Your task to perform on an android device: Go to Maps Image 0: 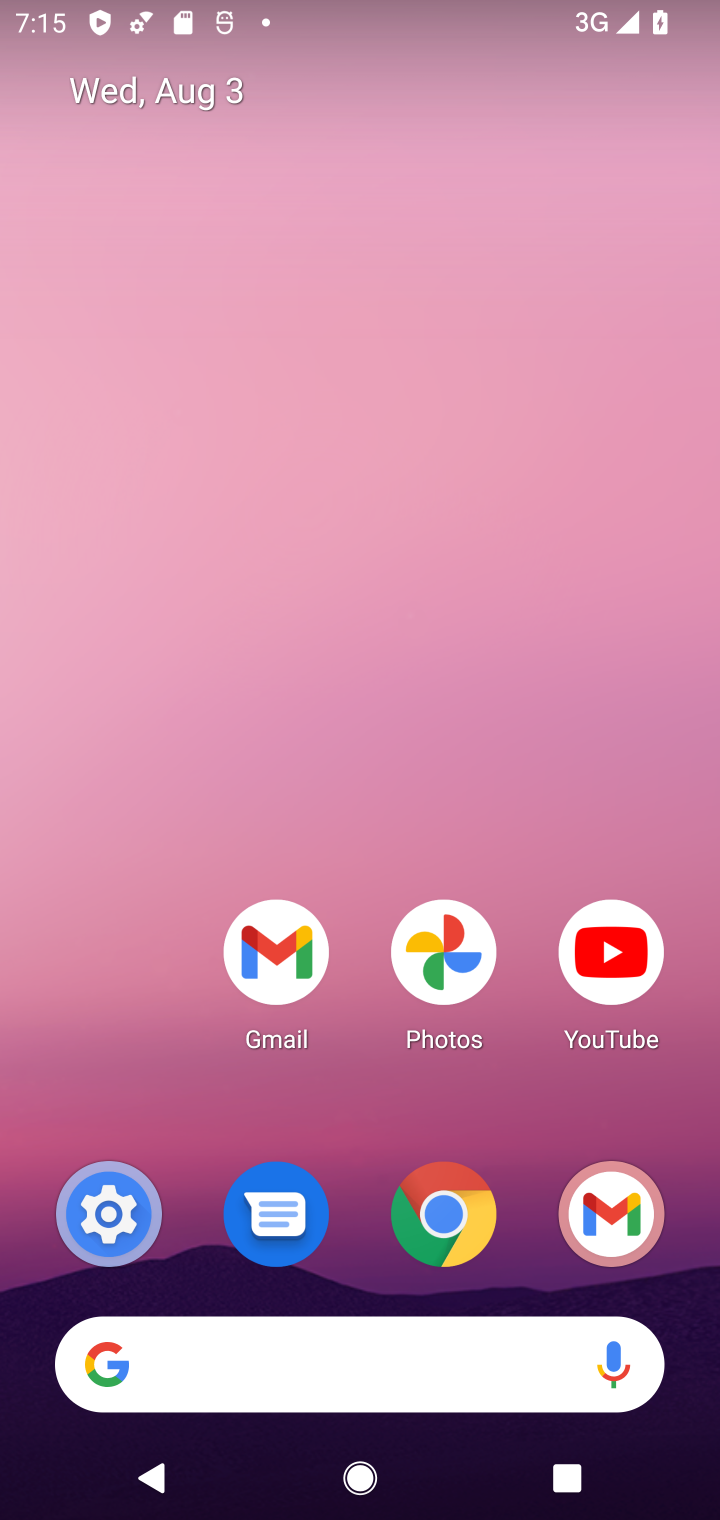
Step 0: drag from (132, 826) to (366, 0)
Your task to perform on an android device: Go to Maps Image 1: 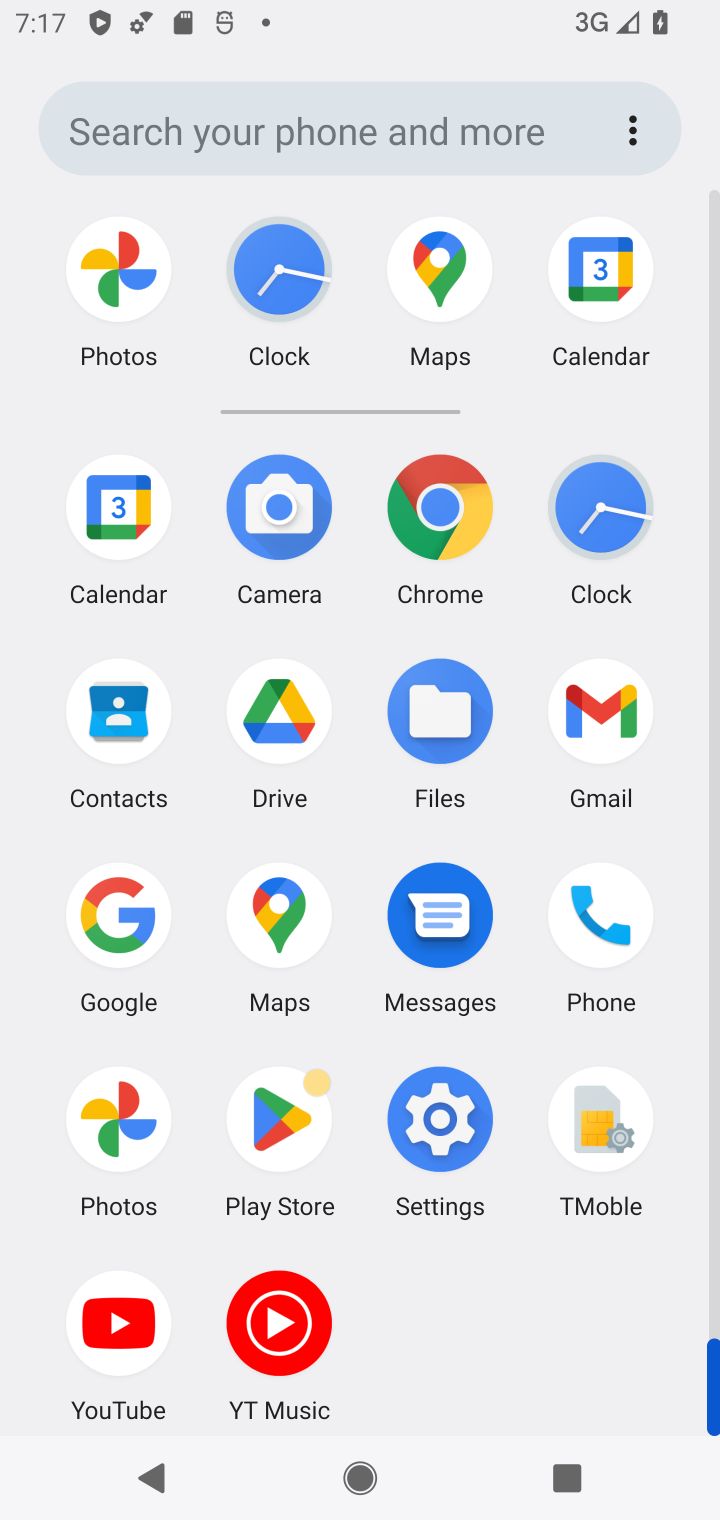
Step 1: click (262, 916)
Your task to perform on an android device: Go to Maps Image 2: 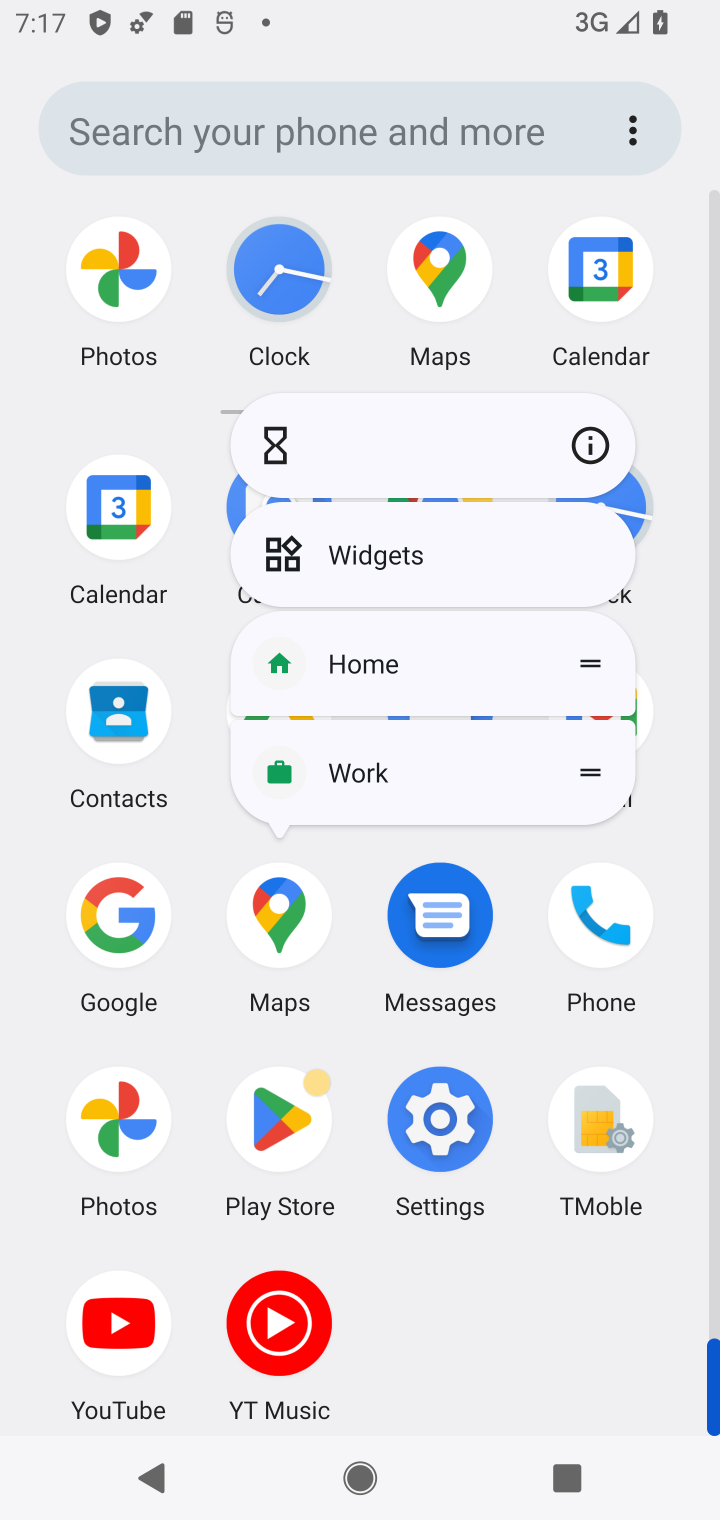
Step 2: click (281, 944)
Your task to perform on an android device: Go to Maps Image 3: 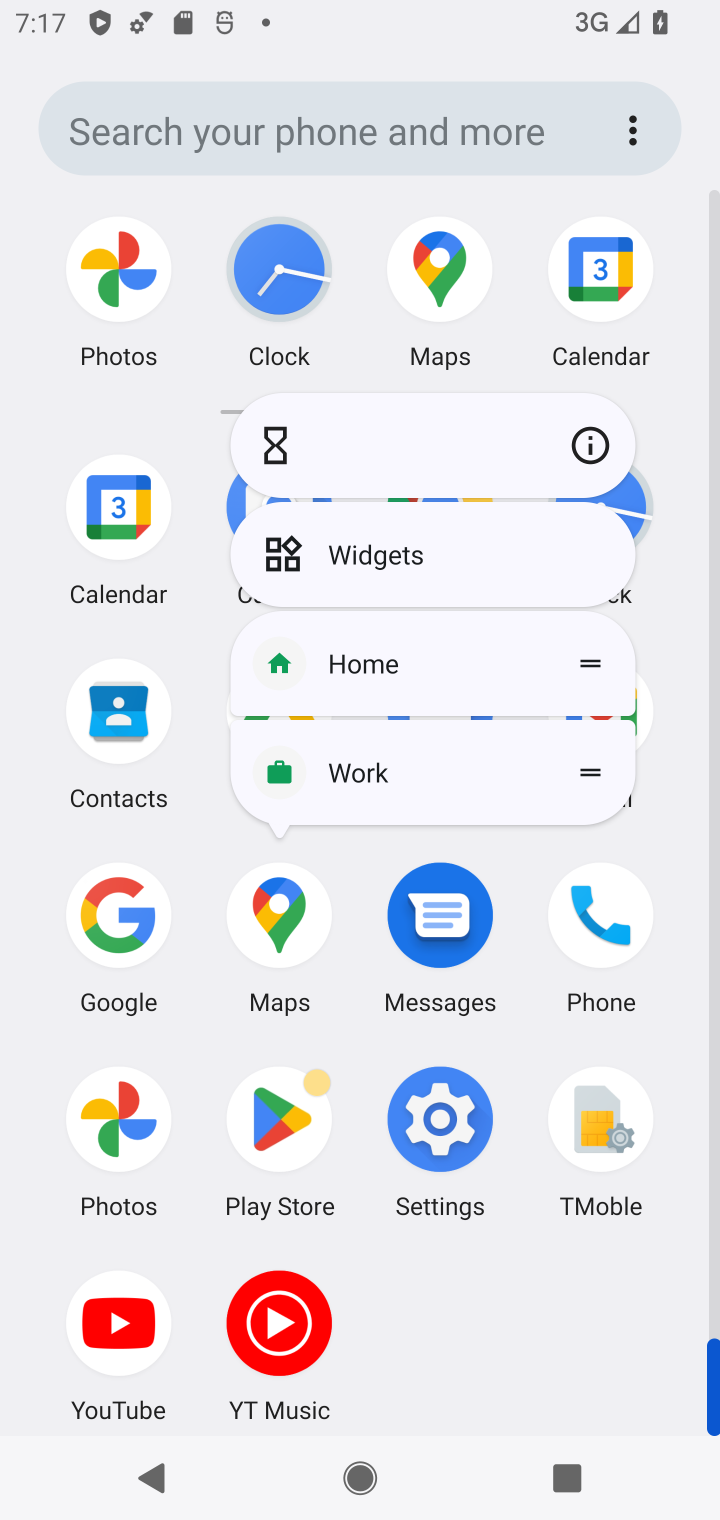
Step 3: click (281, 939)
Your task to perform on an android device: Go to Maps Image 4: 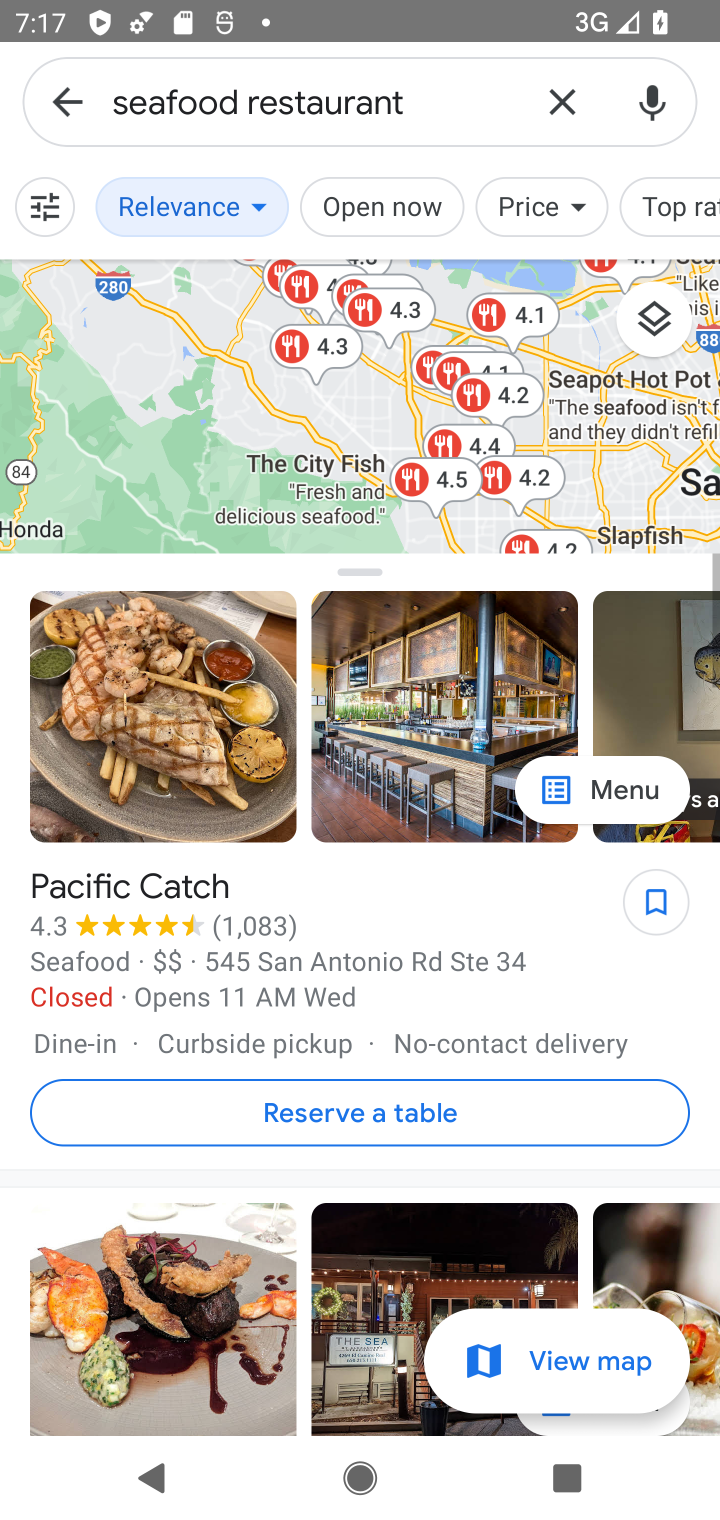
Step 4: task complete